Your task to perform on an android device: turn on bluetooth scan Image 0: 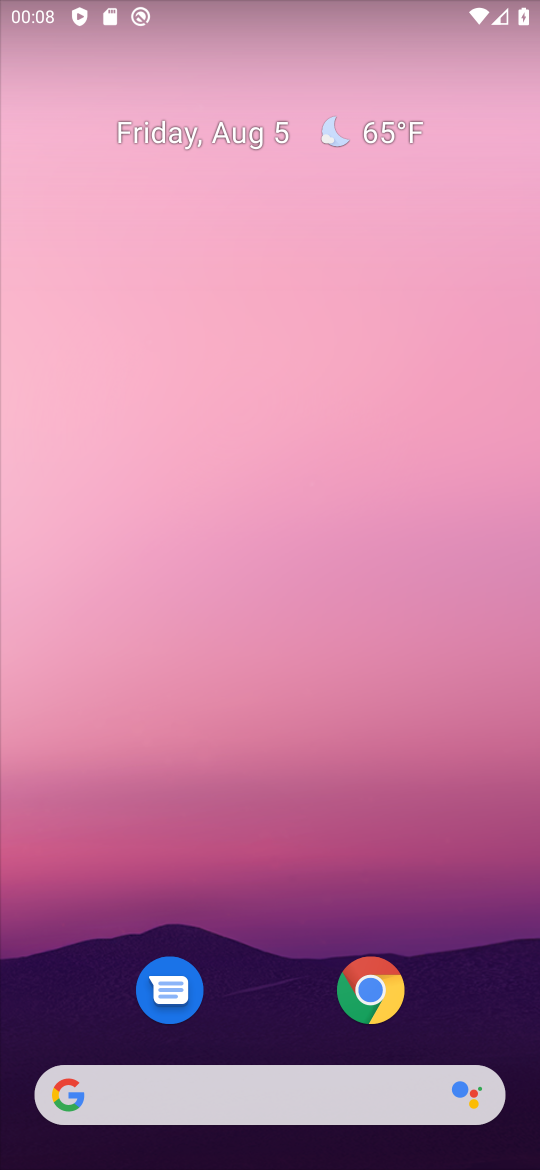
Step 0: click (370, 987)
Your task to perform on an android device: turn on bluetooth scan Image 1: 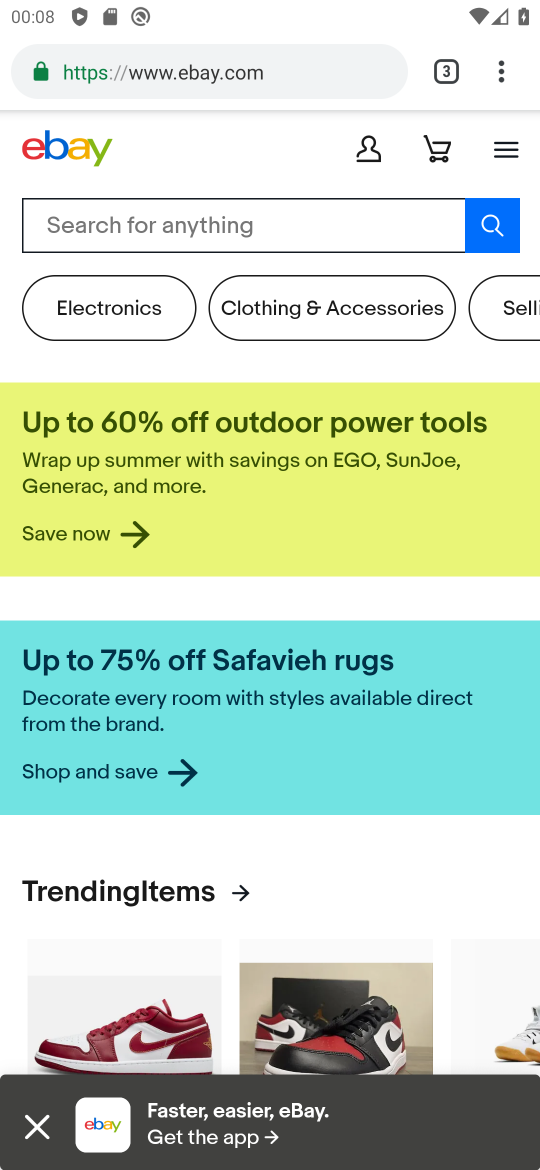
Step 1: task complete